Your task to perform on an android device: Clear all items from cart on ebay. Image 0: 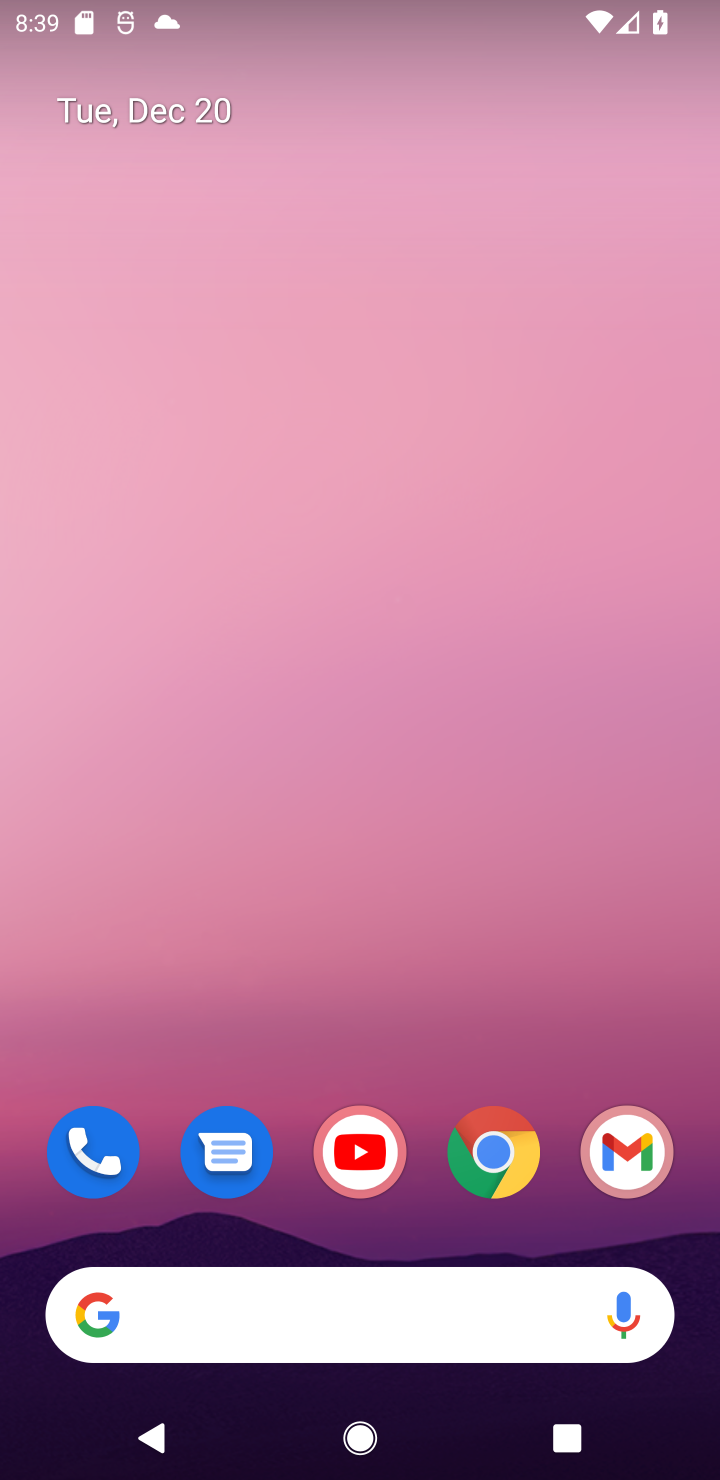
Step 0: click (503, 1160)
Your task to perform on an android device: Clear all items from cart on ebay. Image 1: 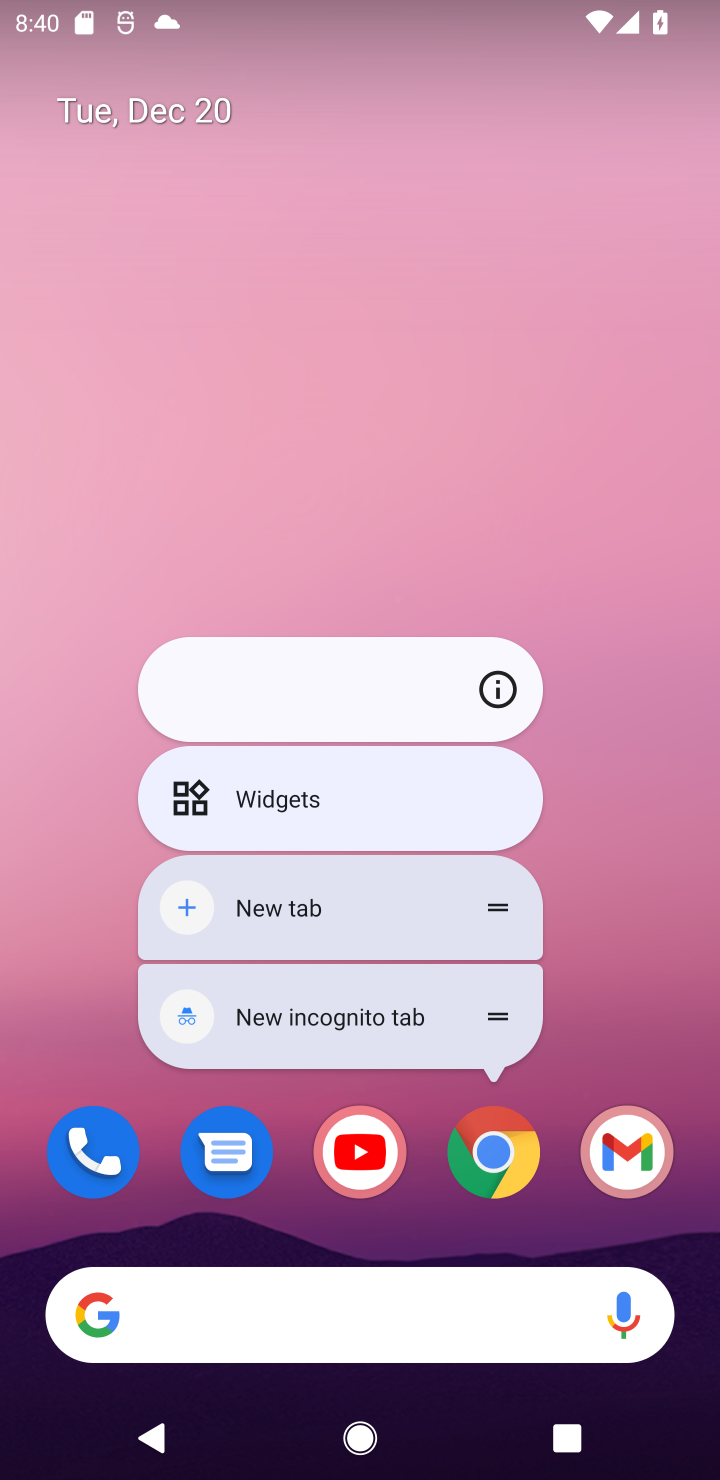
Step 1: click (503, 1160)
Your task to perform on an android device: Clear all items from cart on ebay. Image 2: 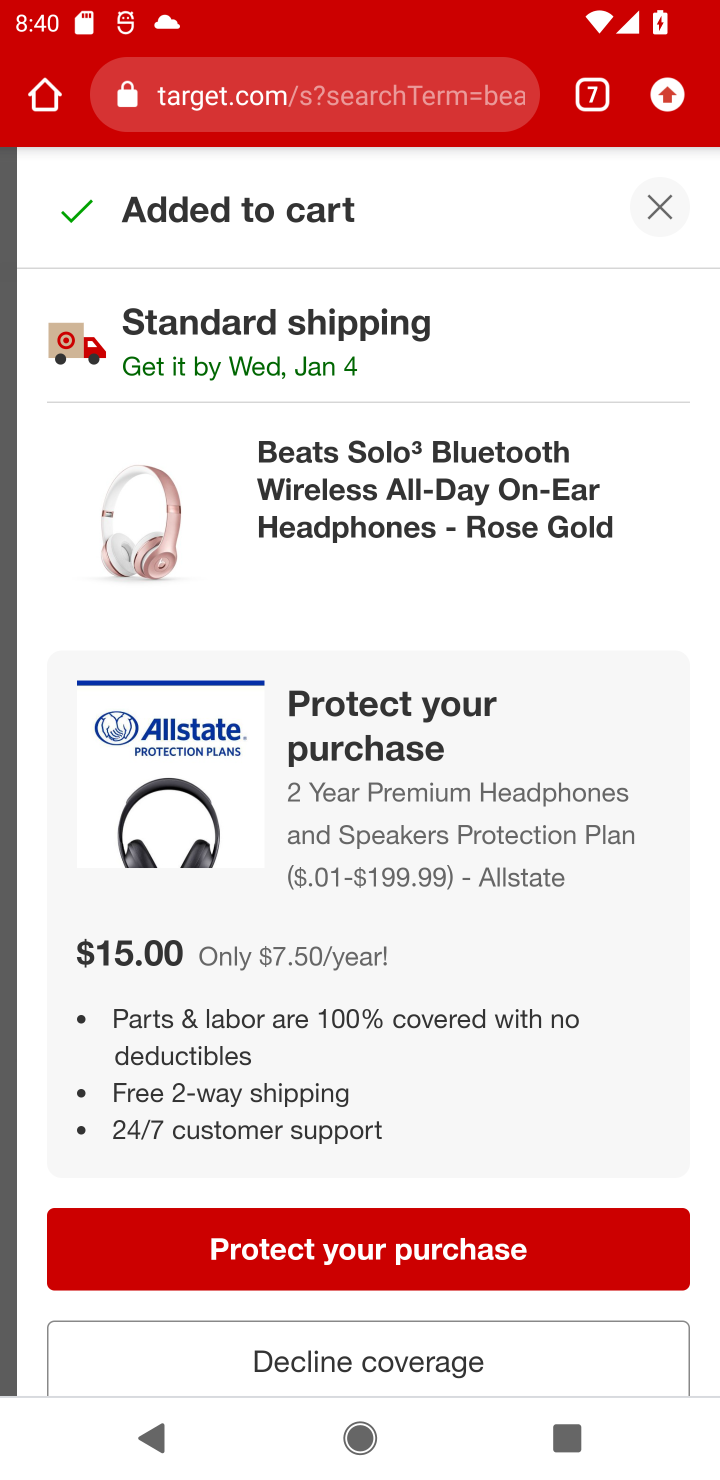
Step 2: click (592, 104)
Your task to perform on an android device: Clear all items from cart on ebay. Image 3: 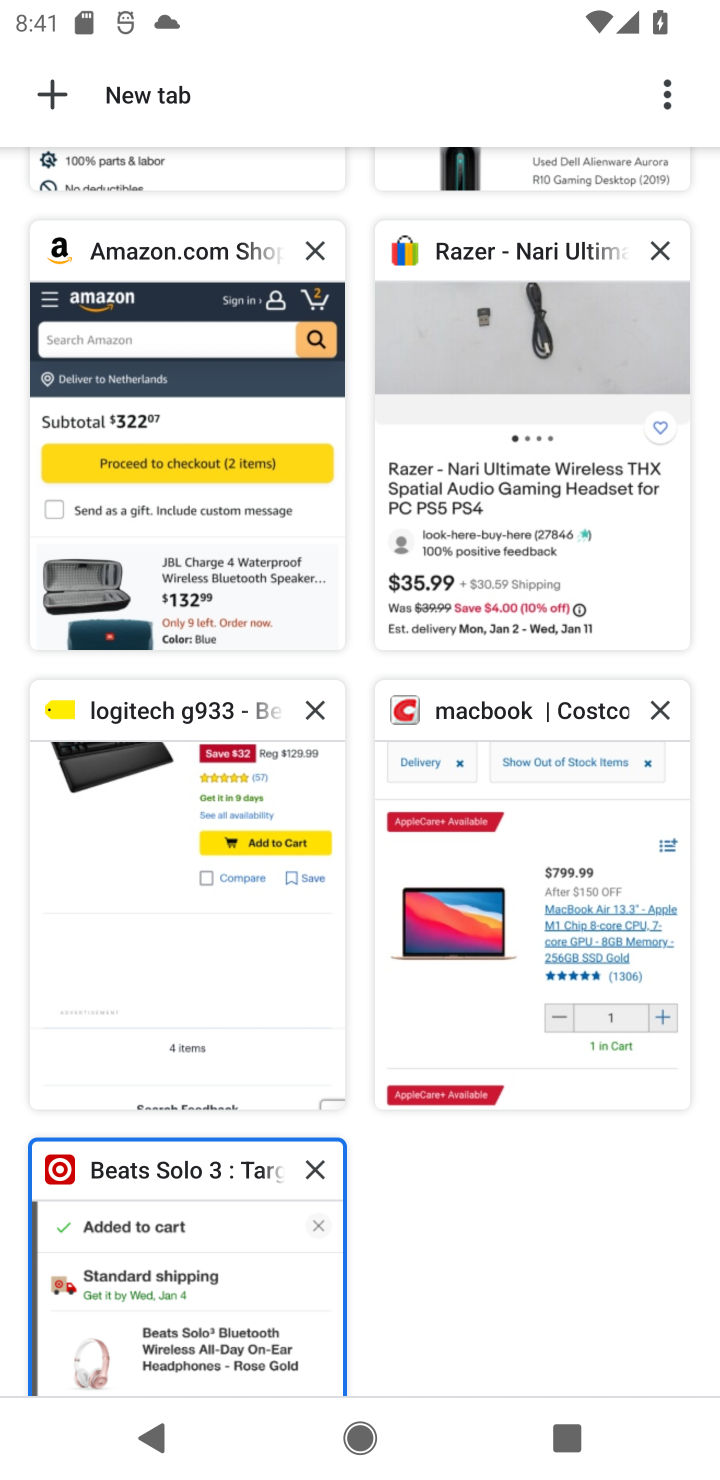
Step 3: click (443, 330)
Your task to perform on an android device: Clear all items from cart on ebay. Image 4: 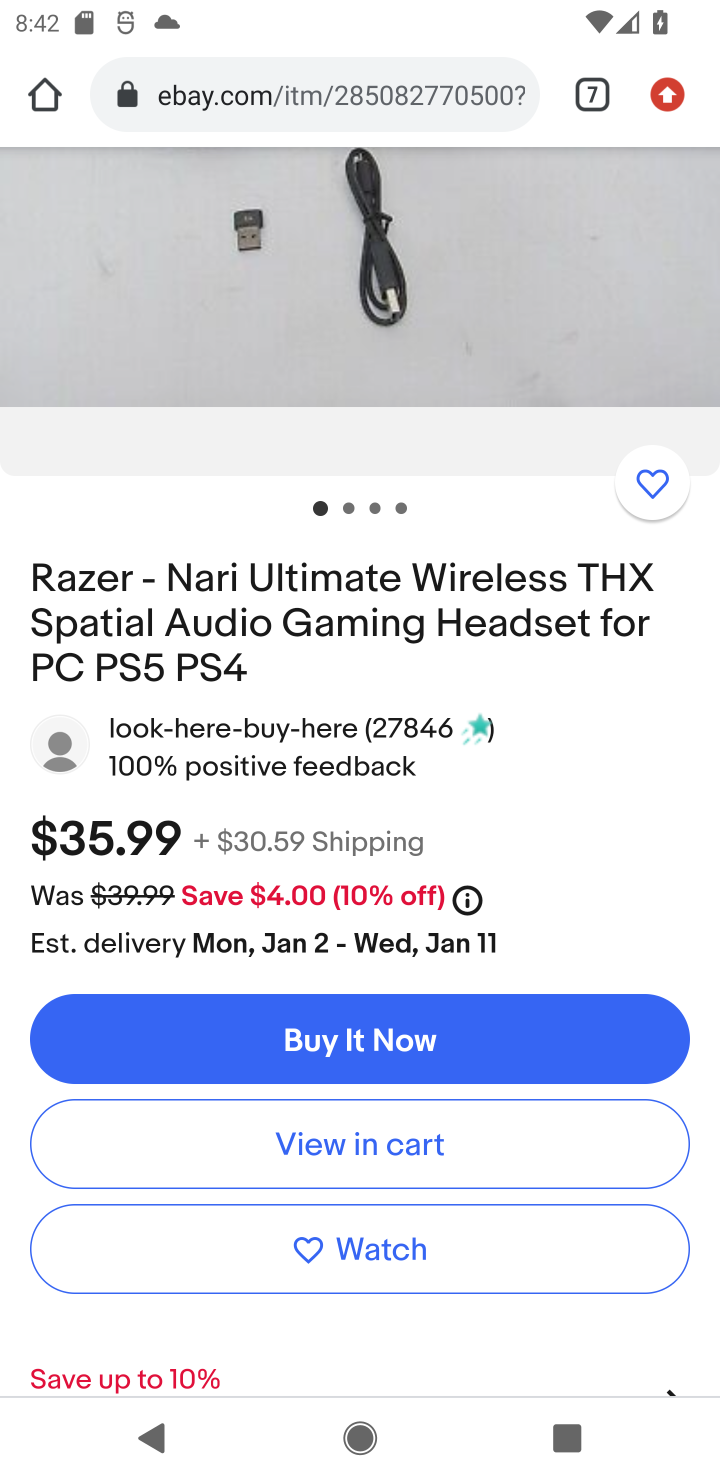
Step 4: click (433, 1138)
Your task to perform on an android device: Clear all items from cart on ebay. Image 5: 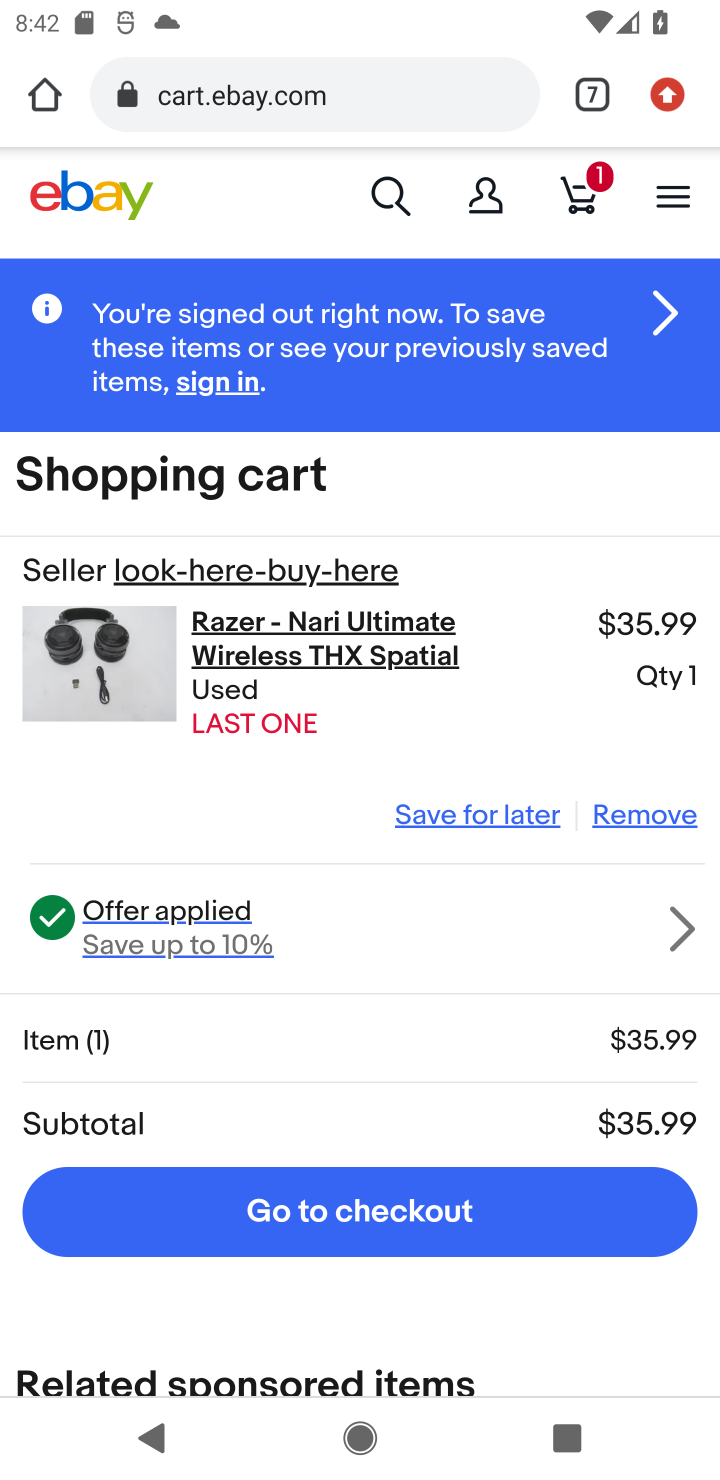
Step 5: click (643, 816)
Your task to perform on an android device: Clear all items from cart on ebay. Image 6: 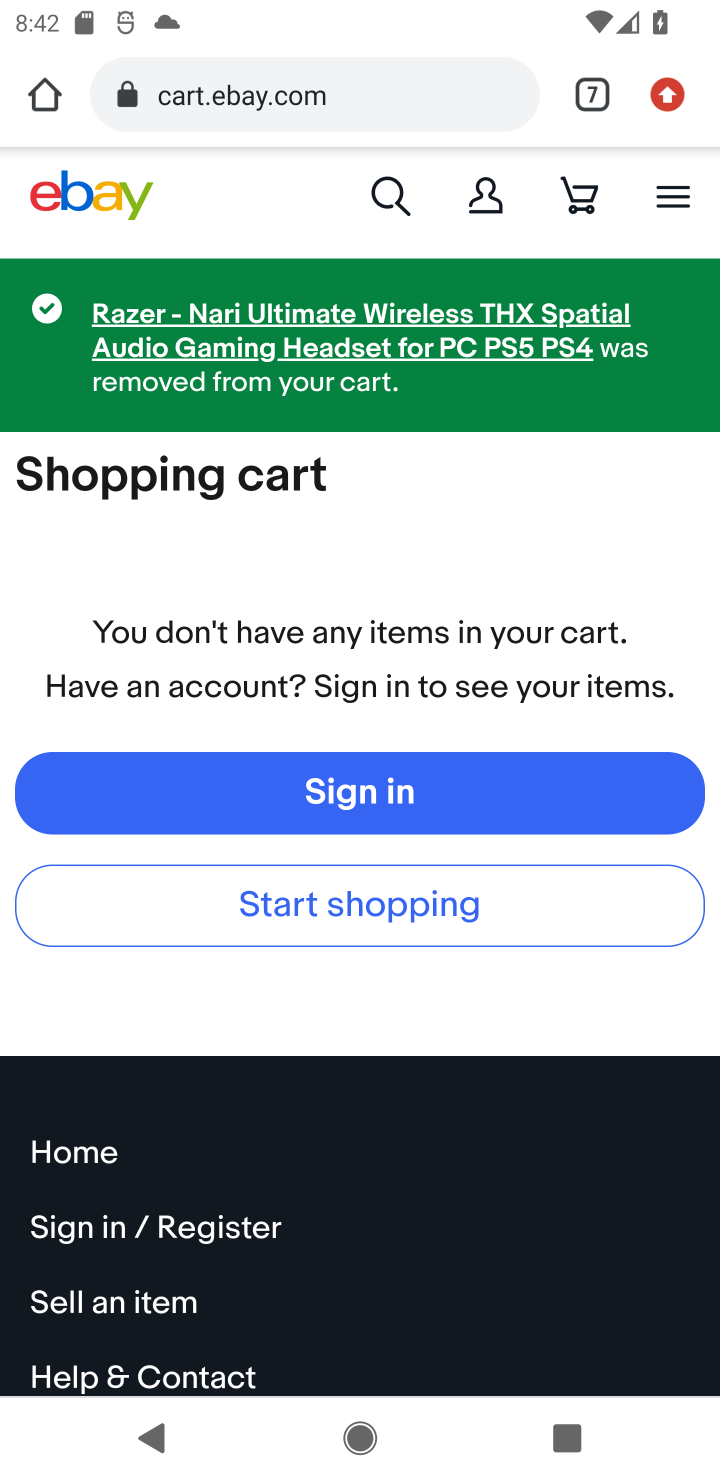
Step 6: task complete